Your task to perform on an android device: What's the weather? Image 0: 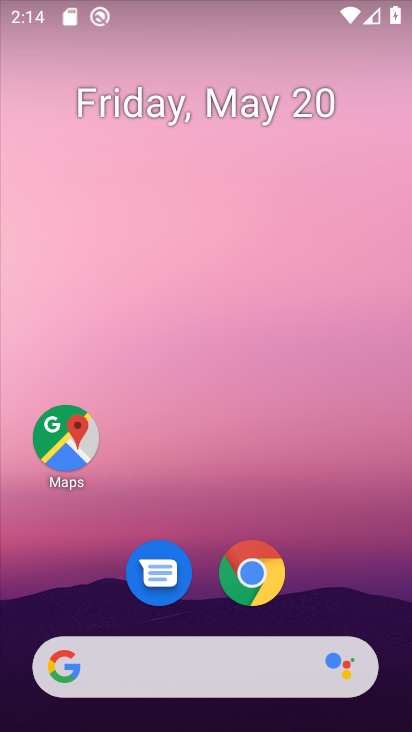
Step 0: drag from (200, 602) to (221, 213)
Your task to perform on an android device: What's the weather? Image 1: 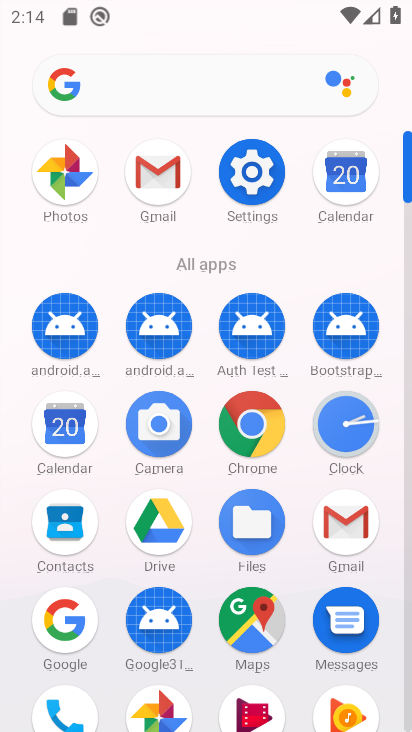
Step 1: click (68, 621)
Your task to perform on an android device: What's the weather? Image 2: 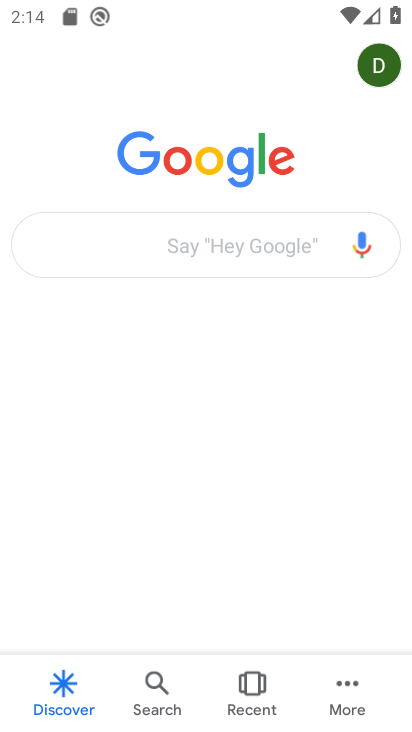
Step 2: click (138, 257)
Your task to perform on an android device: What's the weather? Image 3: 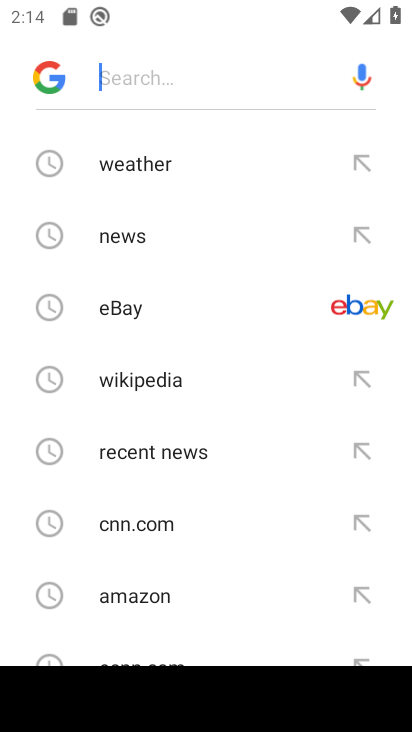
Step 3: click (144, 177)
Your task to perform on an android device: What's the weather? Image 4: 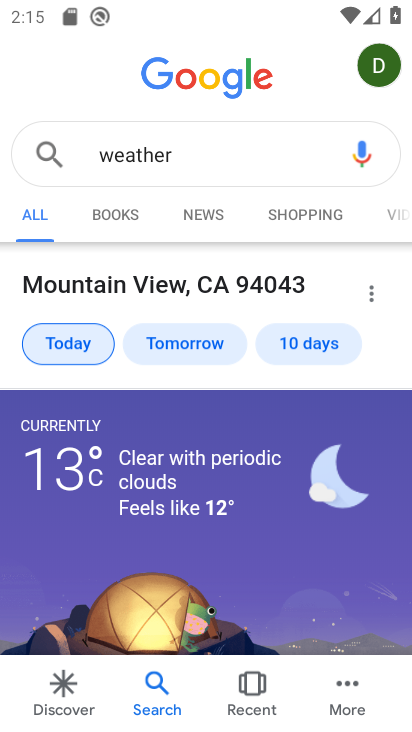
Step 4: task complete